Your task to perform on an android device: Clear the cart on walmart.com. Image 0: 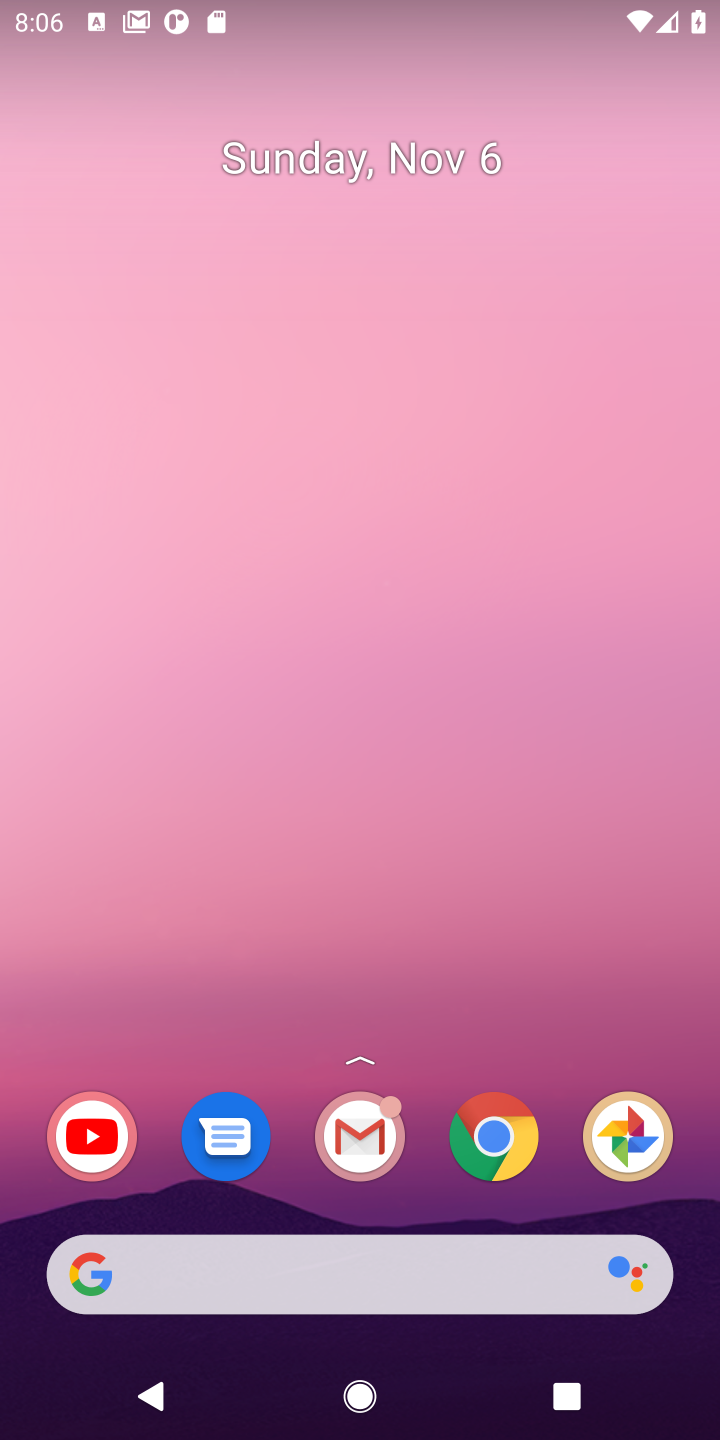
Step 0: click (372, 1283)
Your task to perform on an android device: Clear the cart on walmart.com. Image 1: 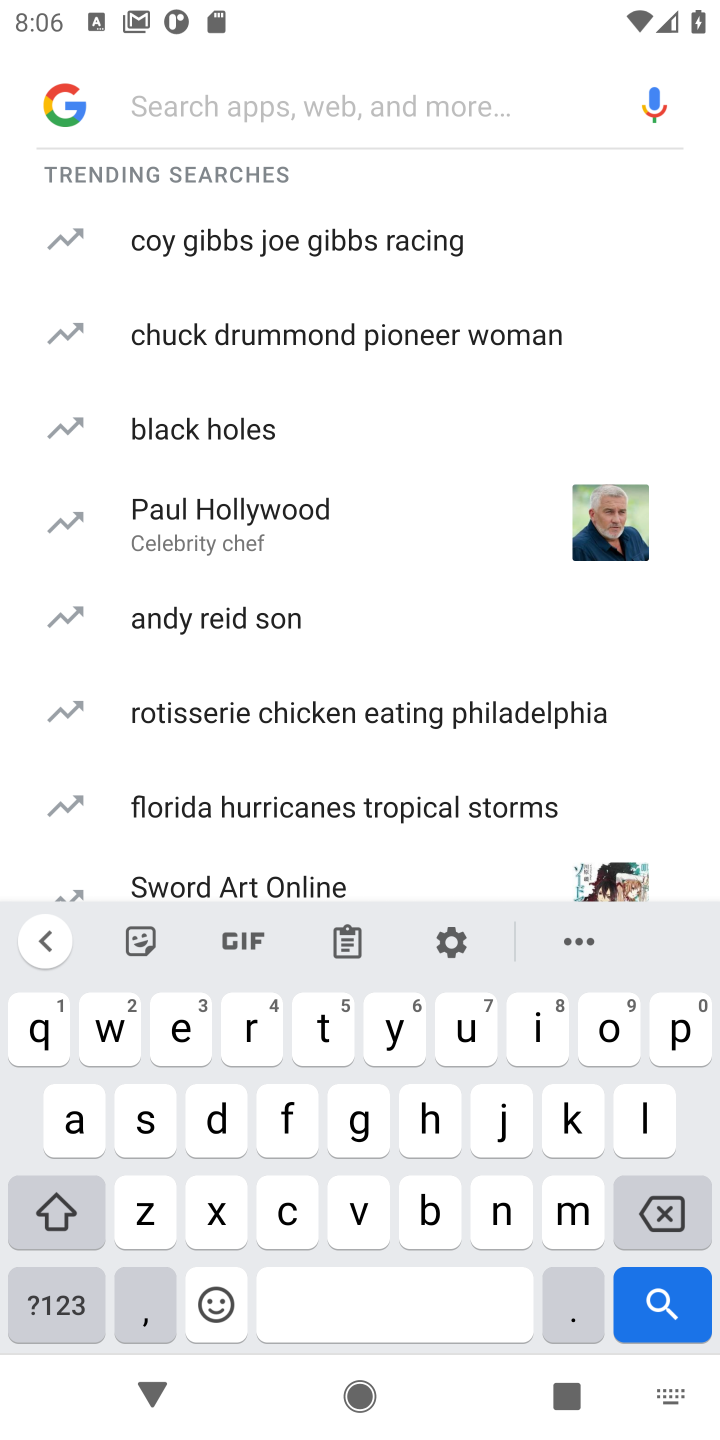
Step 1: click (294, 119)
Your task to perform on an android device: Clear the cart on walmart.com. Image 2: 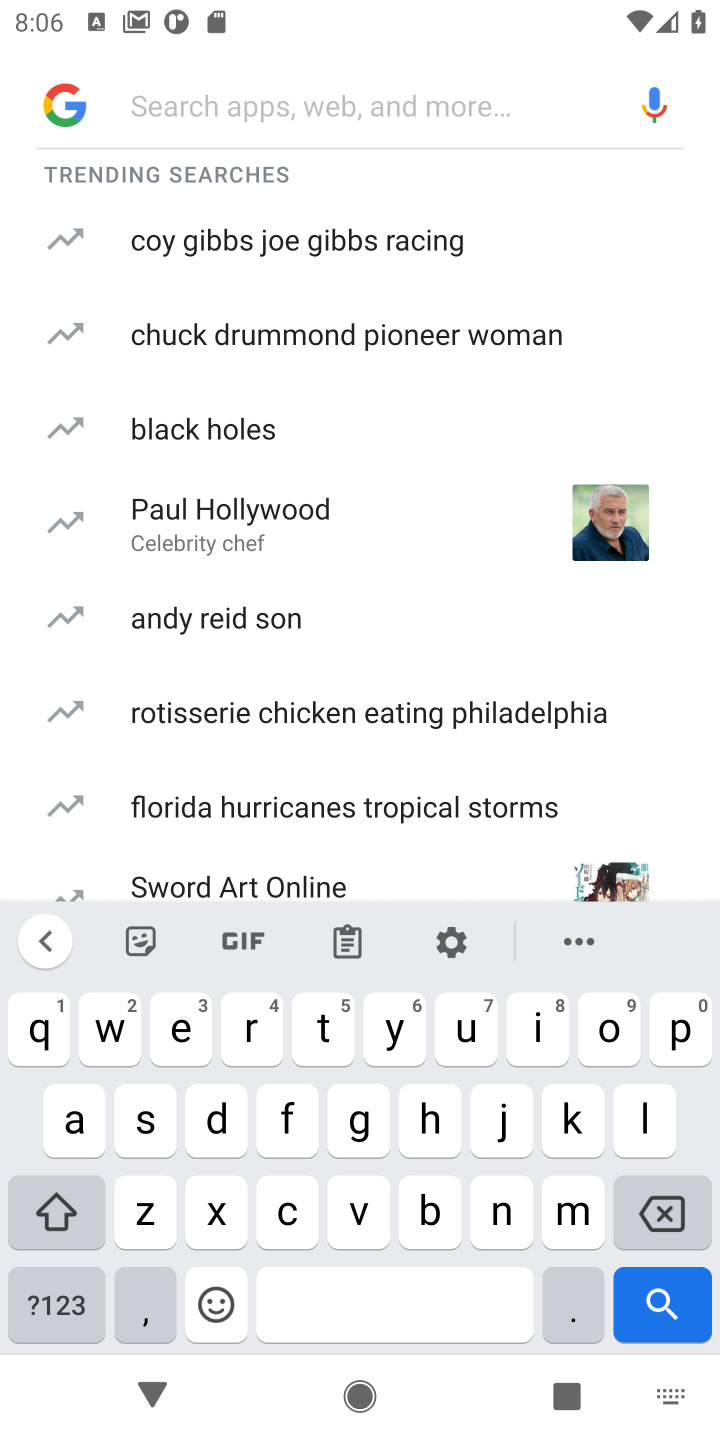
Step 2: type "walmart"
Your task to perform on an android device: Clear the cart on walmart.com. Image 3: 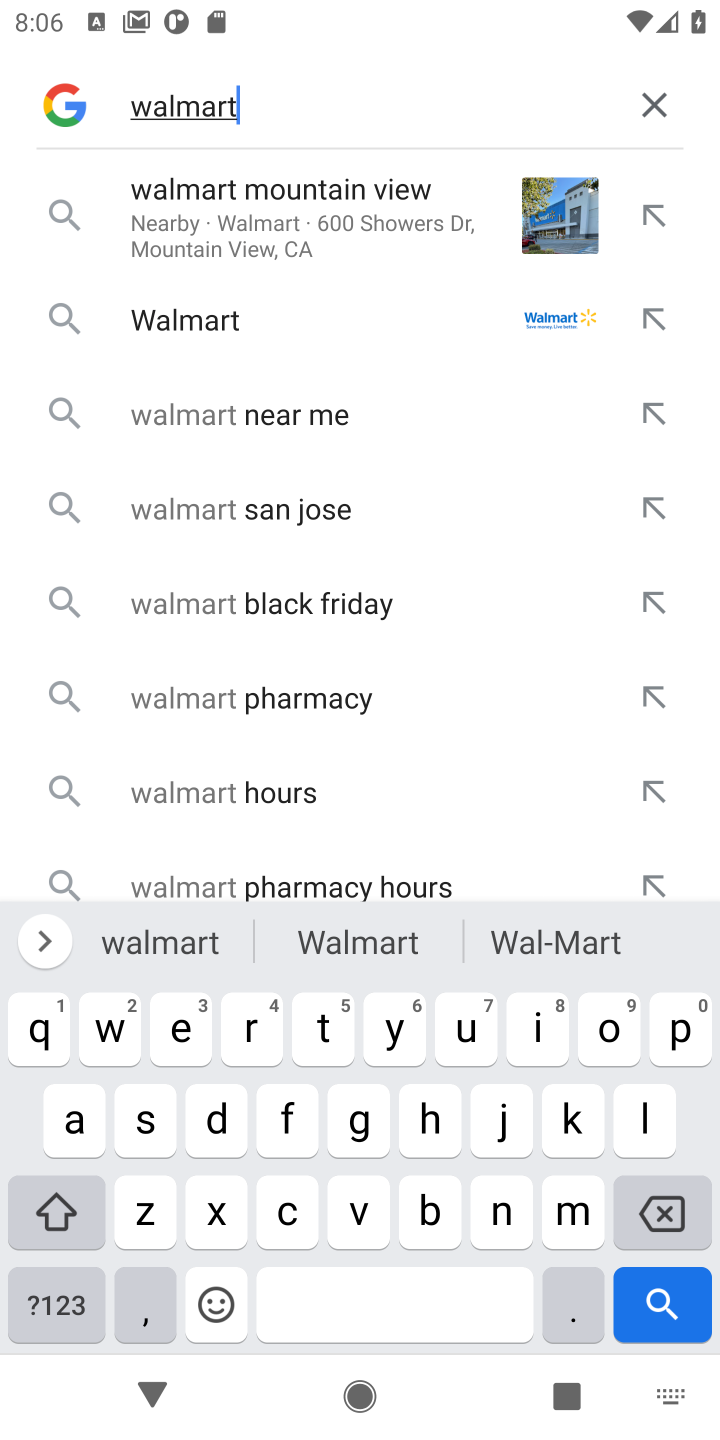
Step 3: task complete